Your task to perform on an android device: Set an alarm for 1pm Image 0: 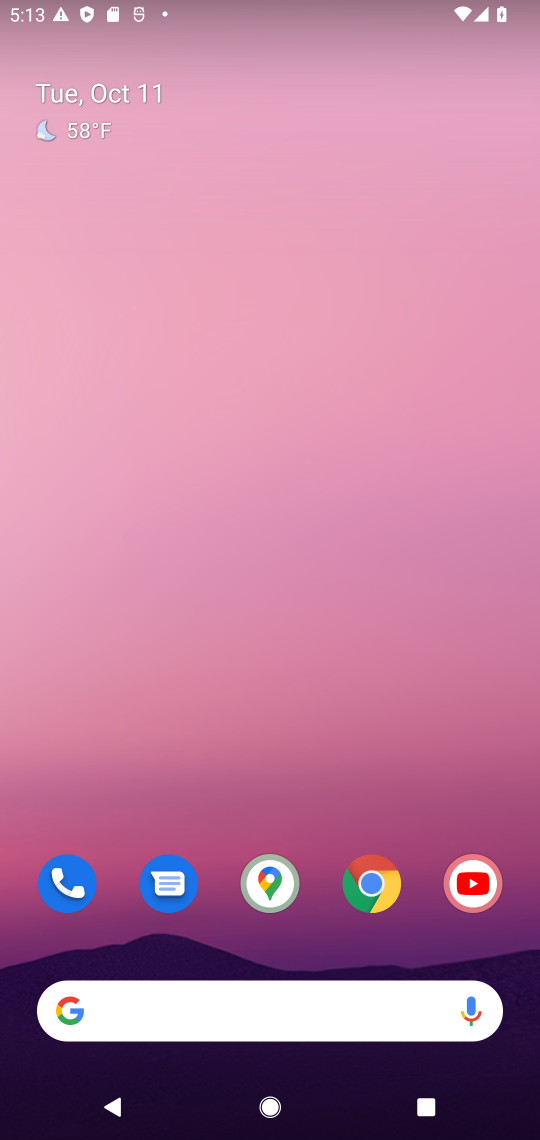
Step 0: drag from (264, 759) to (257, 38)
Your task to perform on an android device: Set an alarm for 1pm Image 1: 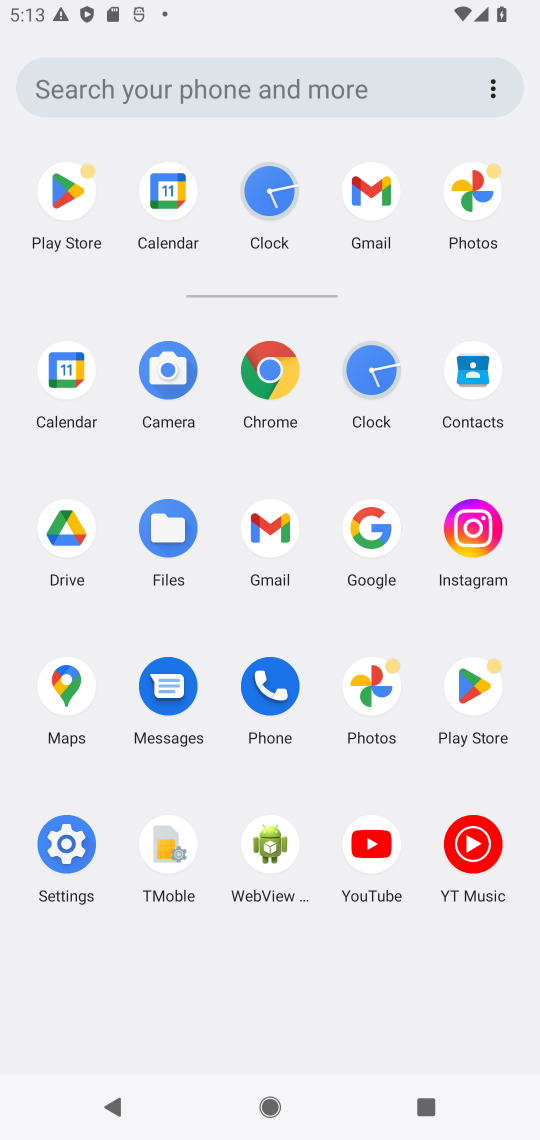
Step 1: click (377, 368)
Your task to perform on an android device: Set an alarm for 1pm Image 2: 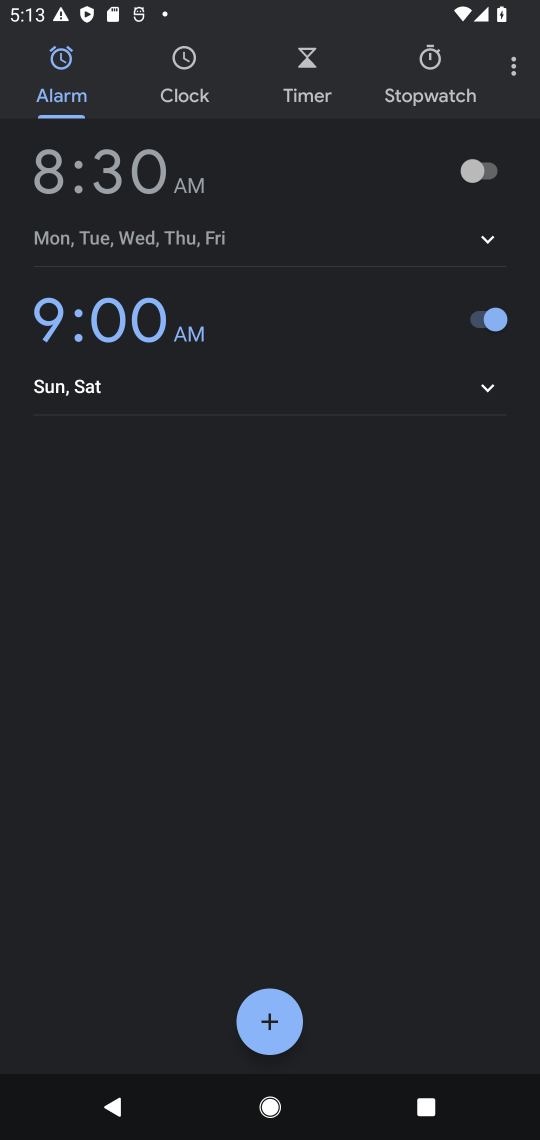
Step 2: click (273, 1027)
Your task to perform on an android device: Set an alarm for 1pm Image 3: 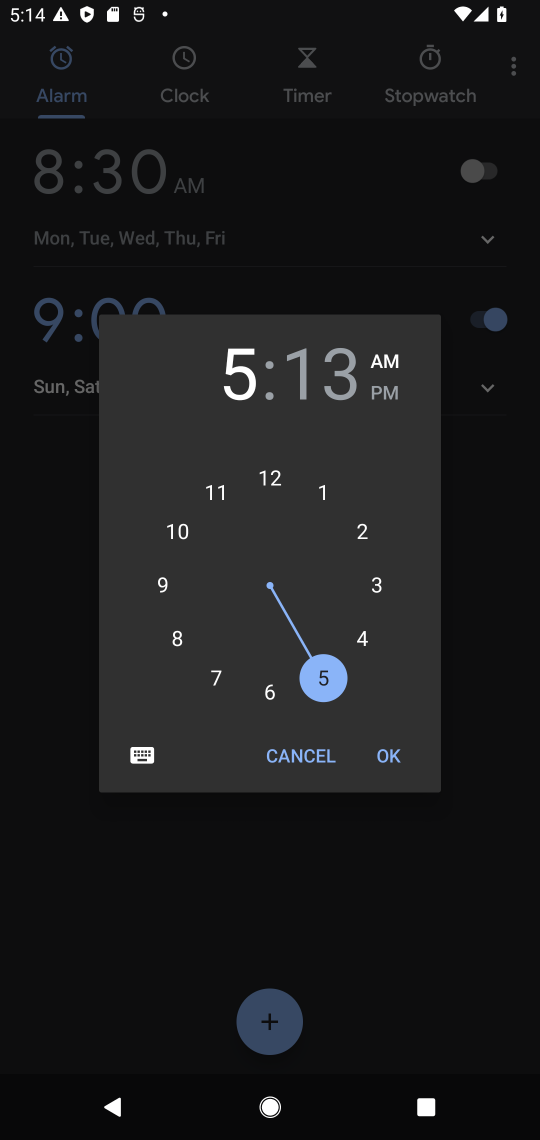
Step 3: click (334, 485)
Your task to perform on an android device: Set an alarm for 1pm Image 4: 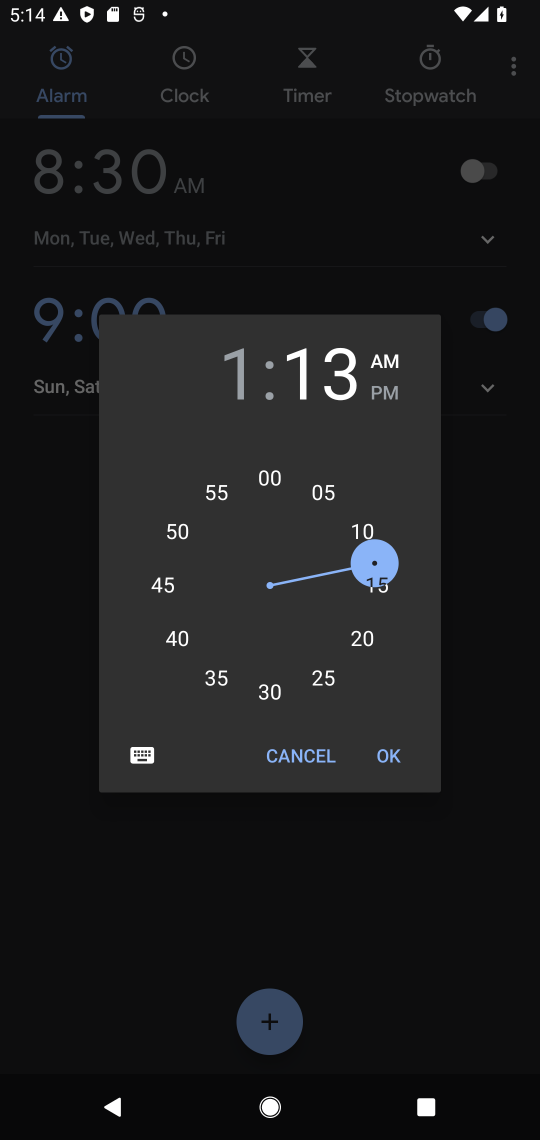
Step 4: click (393, 383)
Your task to perform on an android device: Set an alarm for 1pm Image 5: 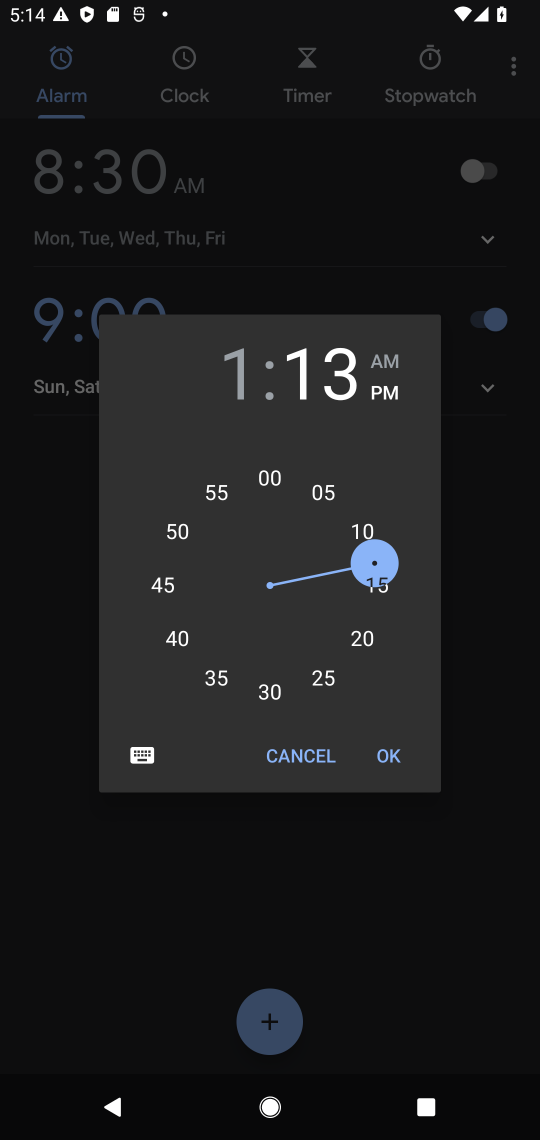
Step 5: click (331, 364)
Your task to perform on an android device: Set an alarm for 1pm Image 6: 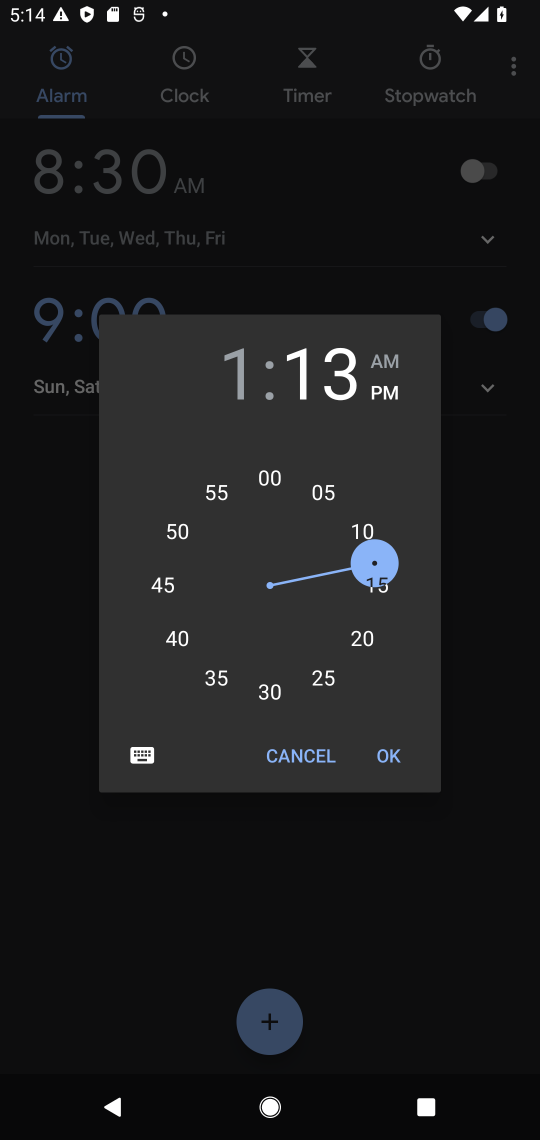
Step 6: click (281, 475)
Your task to perform on an android device: Set an alarm for 1pm Image 7: 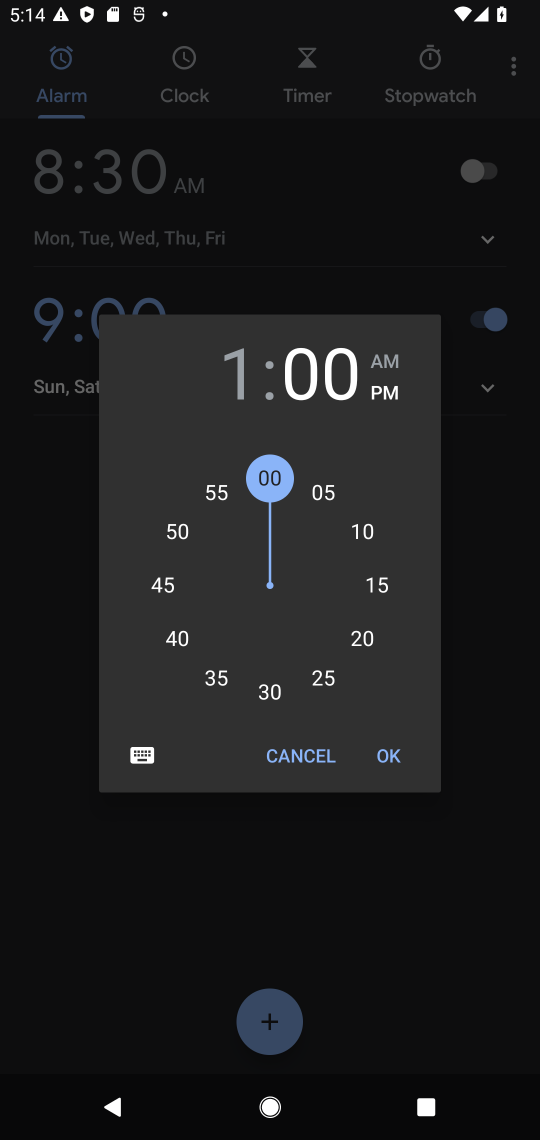
Step 7: click (279, 491)
Your task to perform on an android device: Set an alarm for 1pm Image 8: 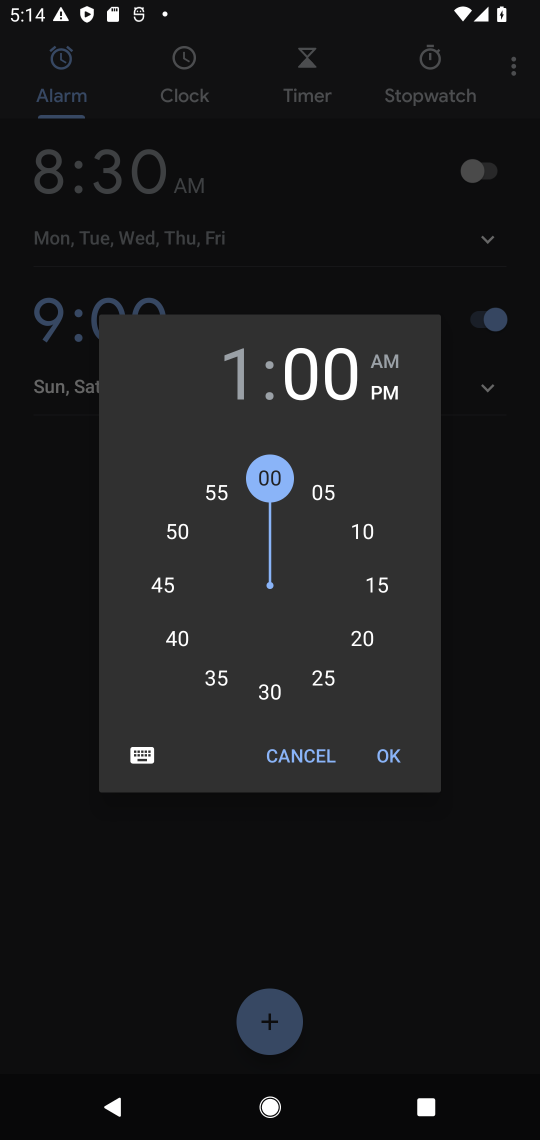
Step 8: click (379, 767)
Your task to perform on an android device: Set an alarm for 1pm Image 9: 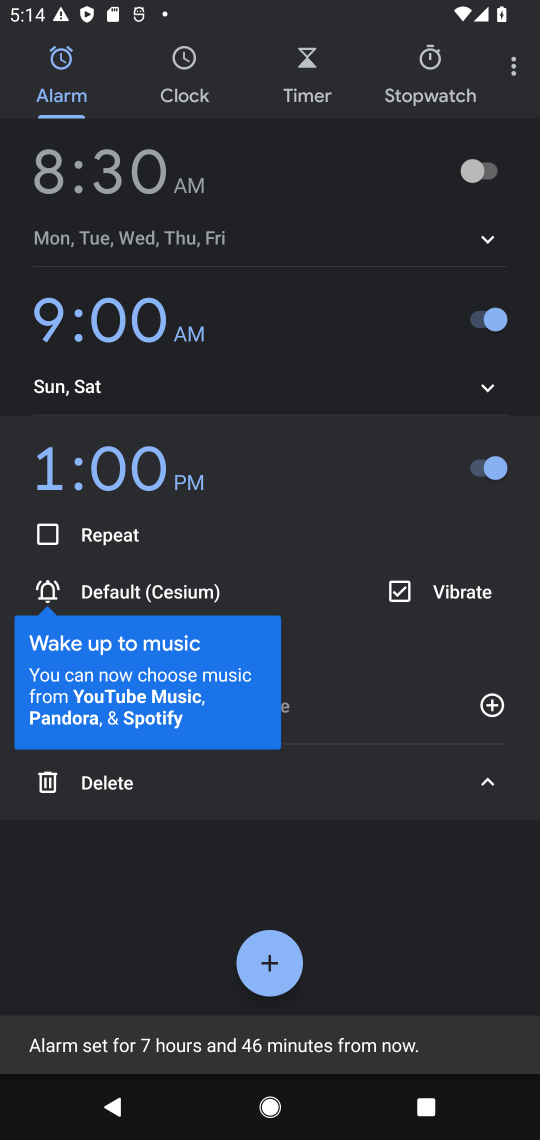
Step 9: task complete